Your task to perform on an android device: set the stopwatch Image 0: 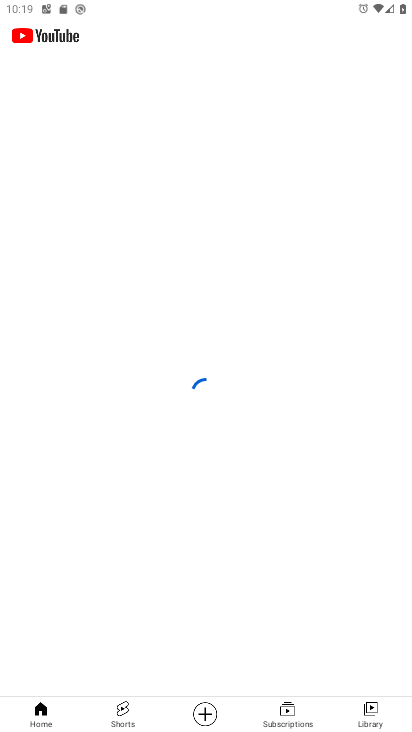
Step 0: press home button
Your task to perform on an android device: set the stopwatch Image 1: 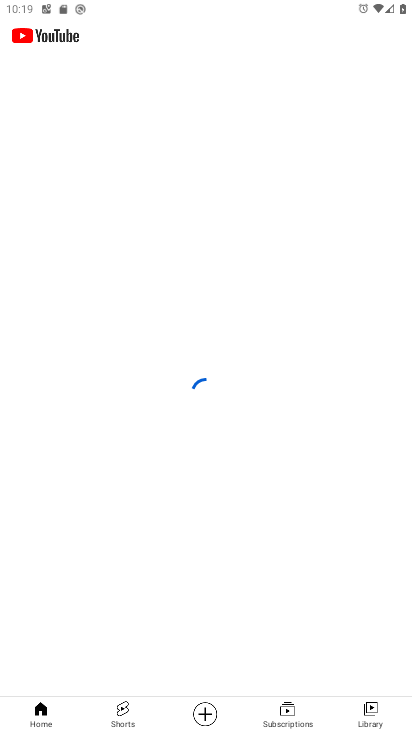
Step 1: click (306, 63)
Your task to perform on an android device: set the stopwatch Image 2: 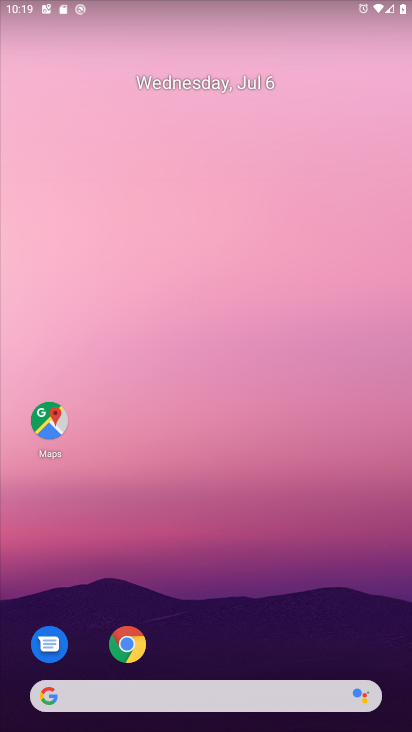
Step 2: drag from (253, 621) to (289, 59)
Your task to perform on an android device: set the stopwatch Image 3: 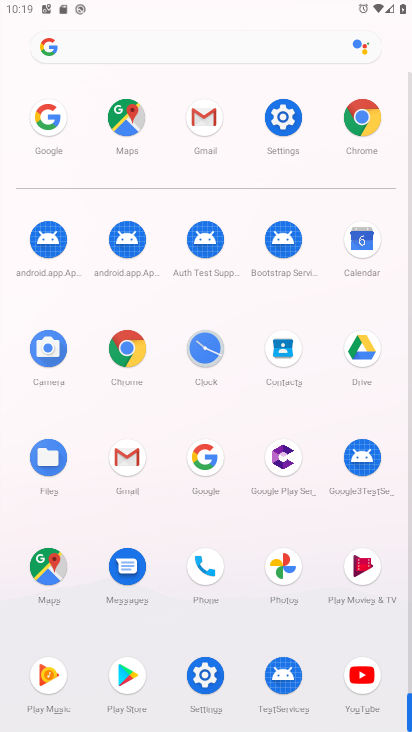
Step 3: click (208, 352)
Your task to perform on an android device: set the stopwatch Image 4: 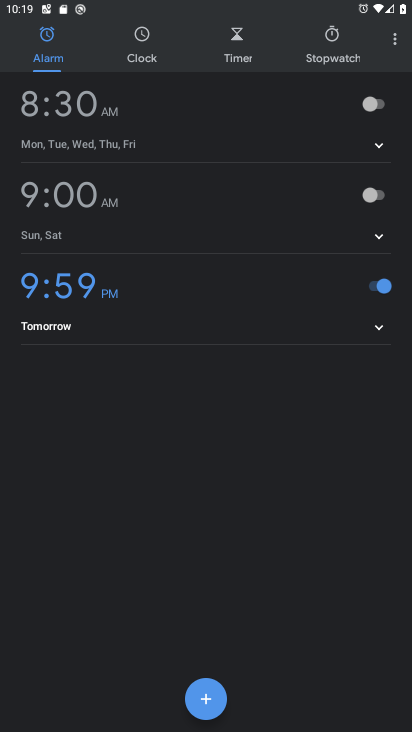
Step 4: click (325, 53)
Your task to perform on an android device: set the stopwatch Image 5: 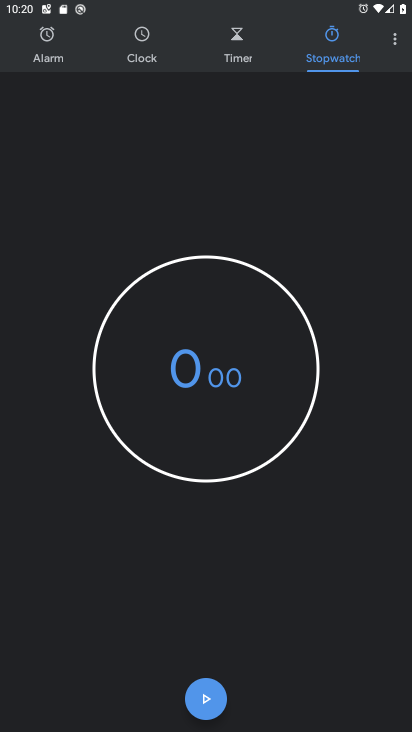
Step 5: click (194, 700)
Your task to perform on an android device: set the stopwatch Image 6: 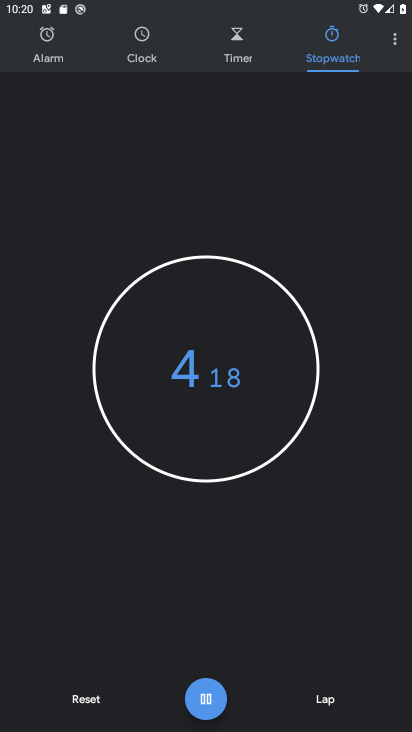
Step 6: task complete